Your task to perform on an android device: What's the weather? Image 0: 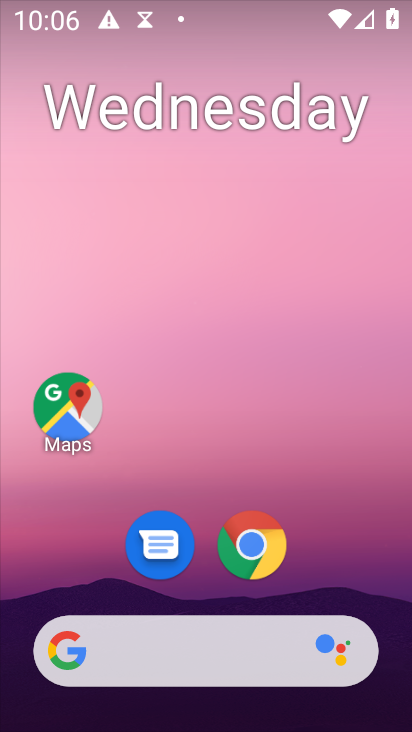
Step 0: click (205, 659)
Your task to perform on an android device: What's the weather? Image 1: 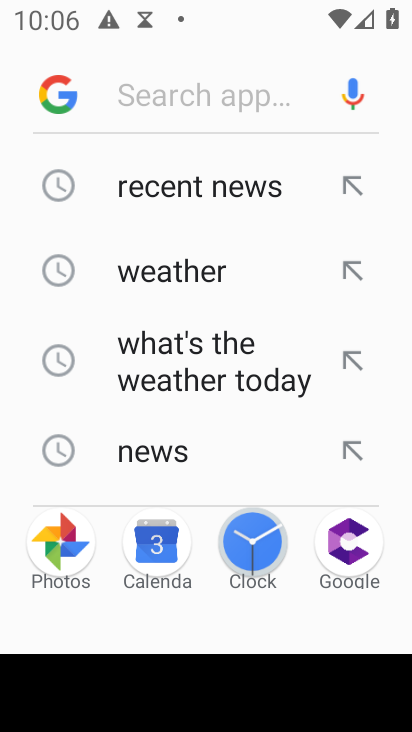
Step 1: type "what's the weather"
Your task to perform on an android device: What's the weather? Image 2: 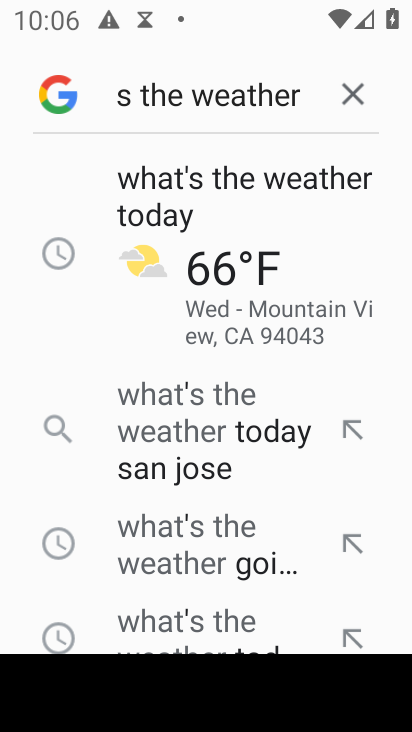
Step 2: click (260, 174)
Your task to perform on an android device: What's the weather? Image 3: 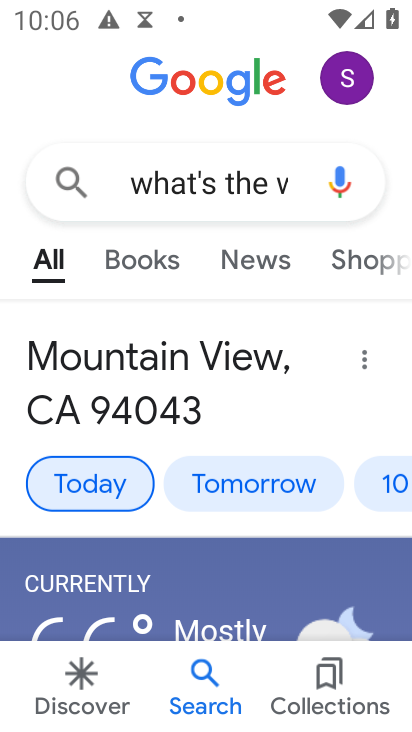
Step 3: task complete